Your task to perform on an android device: find snoozed emails in the gmail app Image 0: 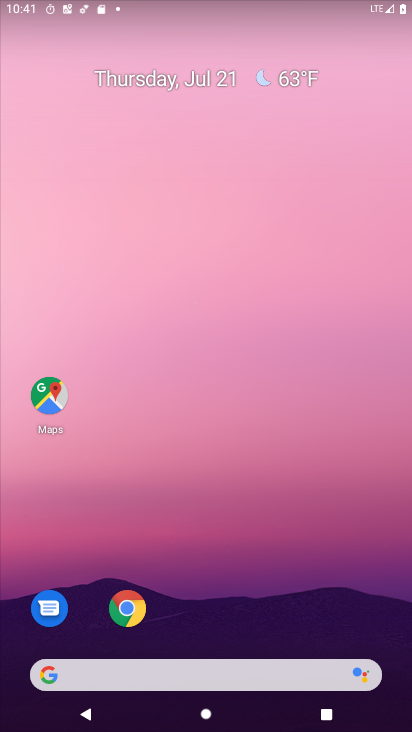
Step 0: drag from (221, 617) to (294, 187)
Your task to perform on an android device: find snoozed emails in the gmail app Image 1: 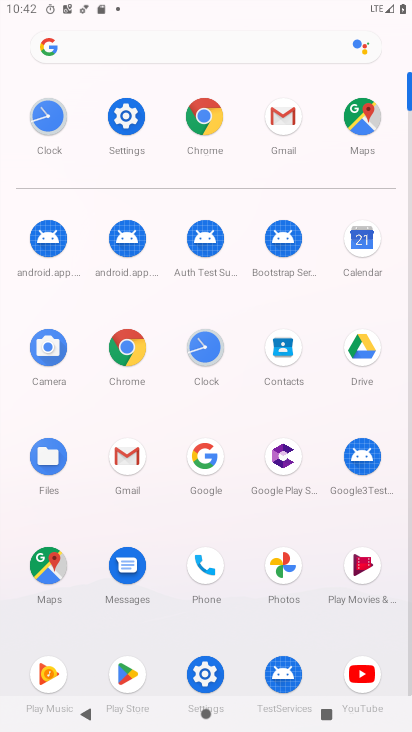
Step 1: click (134, 470)
Your task to perform on an android device: find snoozed emails in the gmail app Image 2: 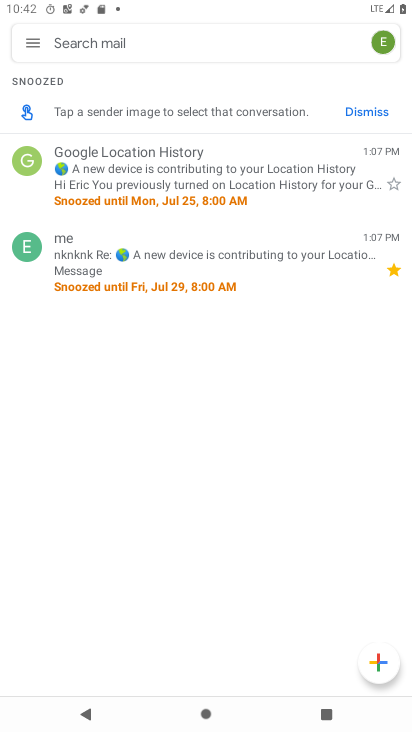
Step 2: click (37, 54)
Your task to perform on an android device: find snoozed emails in the gmail app Image 3: 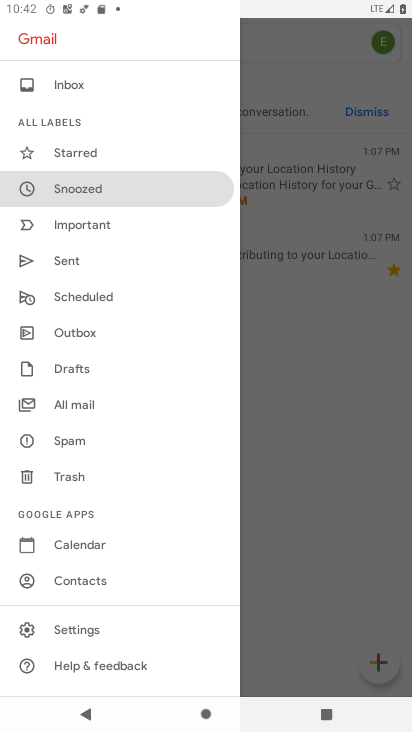
Step 3: drag from (80, 276) to (44, 593)
Your task to perform on an android device: find snoozed emails in the gmail app Image 4: 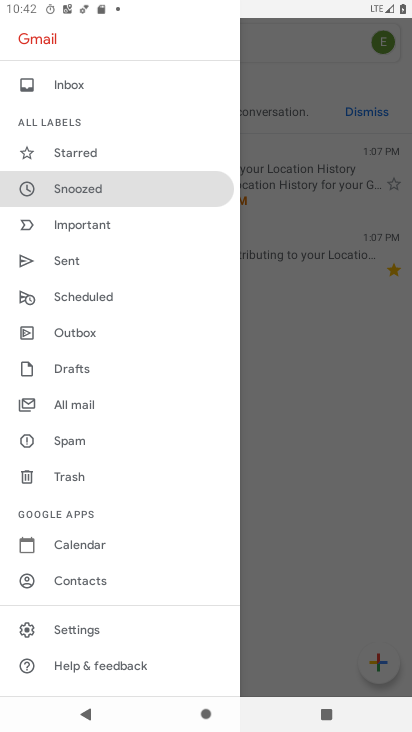
Step 4: click (113, 192)
Your task to perform on an android device: find snoozed emails in the gmail app Image 5: 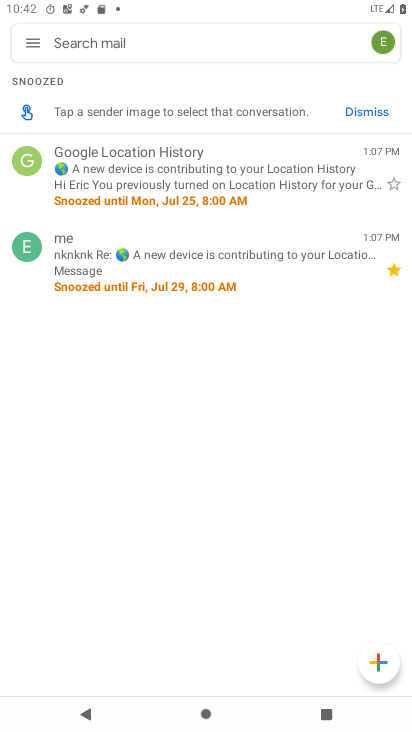
Step 5: task complete